Your task to perform on an android device: Is it going to rain this weekend? Image 0: 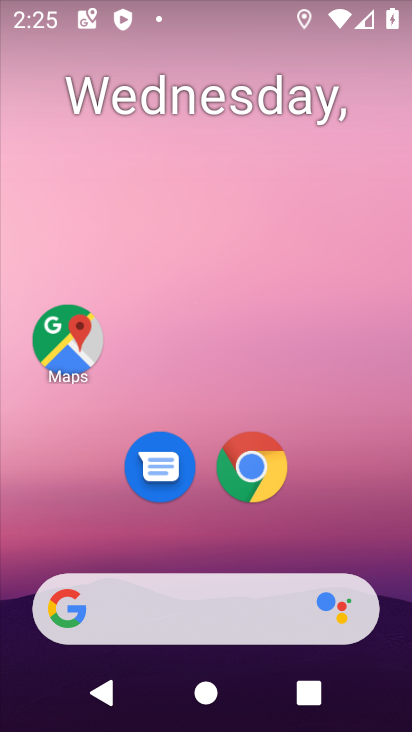
Step 0: drag from (315, 484) to (162, 164)
Your task to perform on an android device: Is it going to rain this weekend? Image 1: 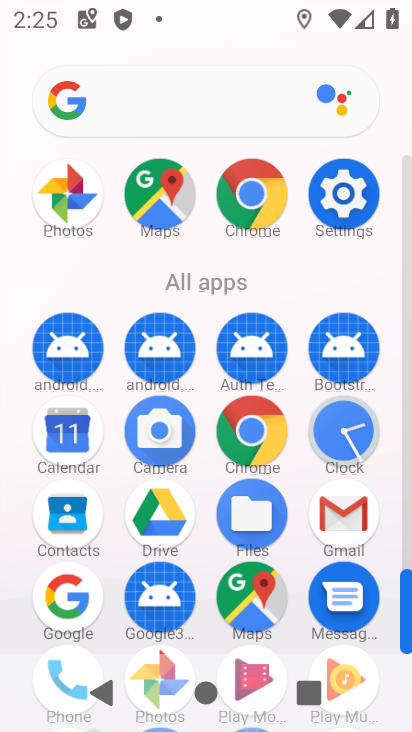
Step 1: press back button
Your task to perform on an android device: Is it going to rain this weekend? Image 2: 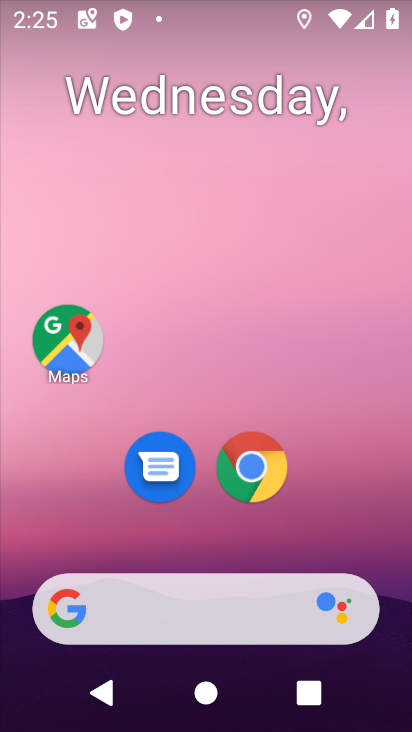
Step 2: drag from (68, 205) to (386, 195)
Your task to perform on an android device: Is it going to rain this weekend? Image 3: 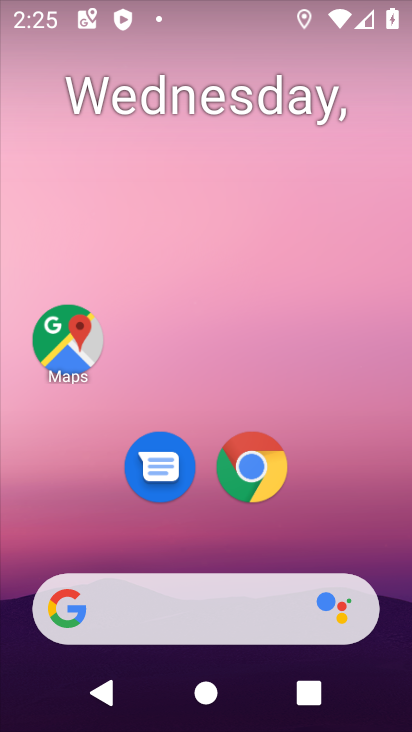
Step 3: drag from (66, 196) to (374, 291)
Your task to perform on an android device: Is it going to rain this weekend? Image 4: 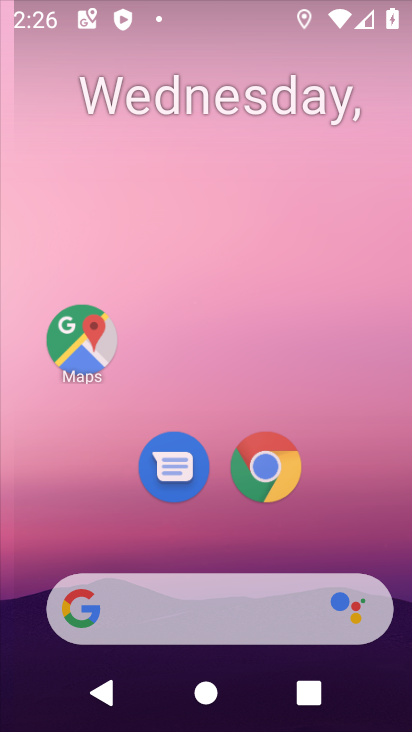
Step 4: drag from (287, 234) to (409, 229)
Your task to perform on an android device: Is it going to rain this weekend? Image 5: 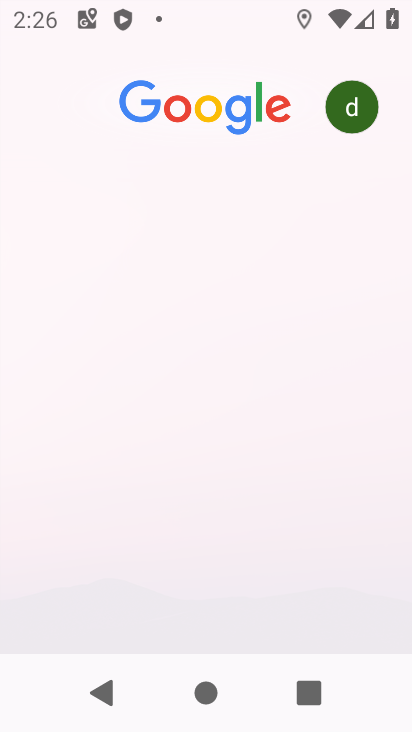
Step 5: drag from (55, 165) to (335, 247)
Your task to perform on an android device: Is it going to rain this weekend? Image 6: 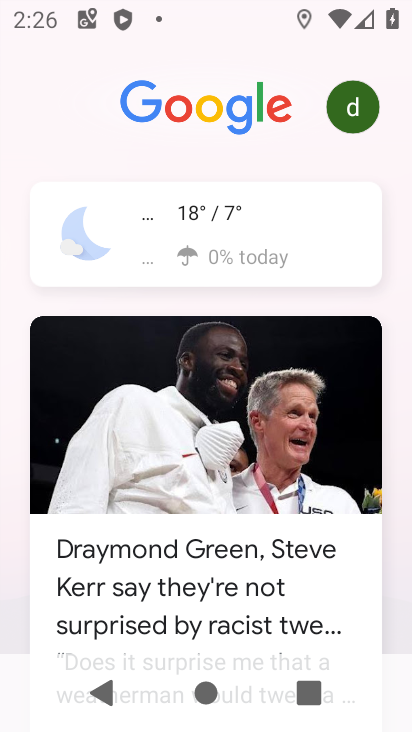
Step 6: click (204, 230)
Your task to perform on an android device: Is it going to rain this weekend? Image 7: 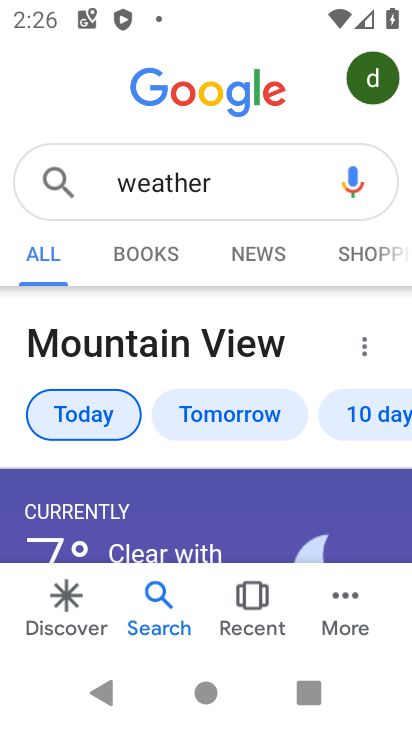
Step 7: task complete